Your task to perform on an android device: clear all cookies in the chrome app Image 0: 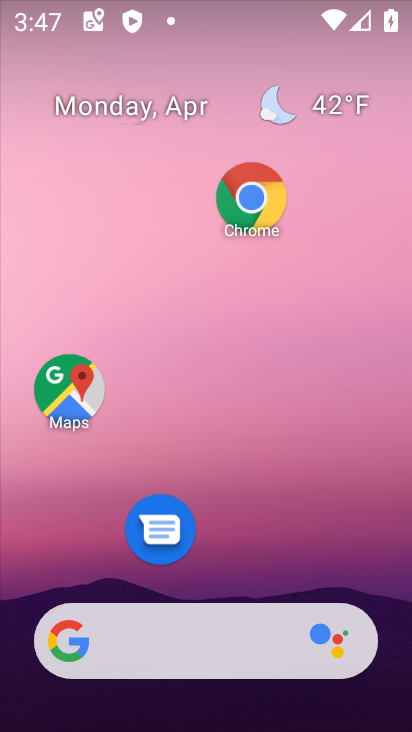
Step 0: click (244, 201)
Your task to perform on an android device: clear all cookies in the chrome app Image 1: 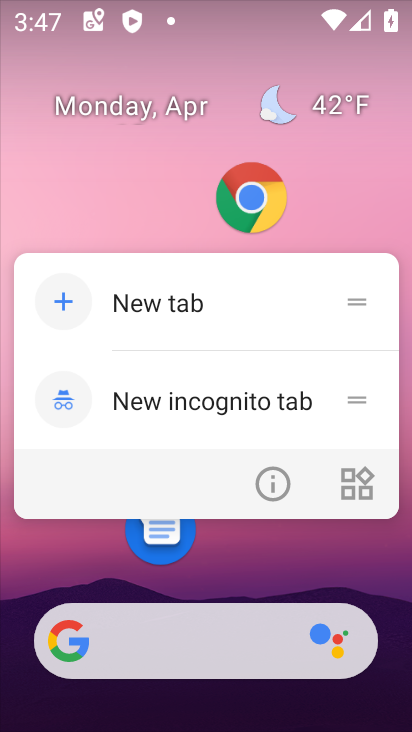
Step 1: click (244, 201)
Your task to perform on an android device: clear all cookies in the chrome app Image 2: 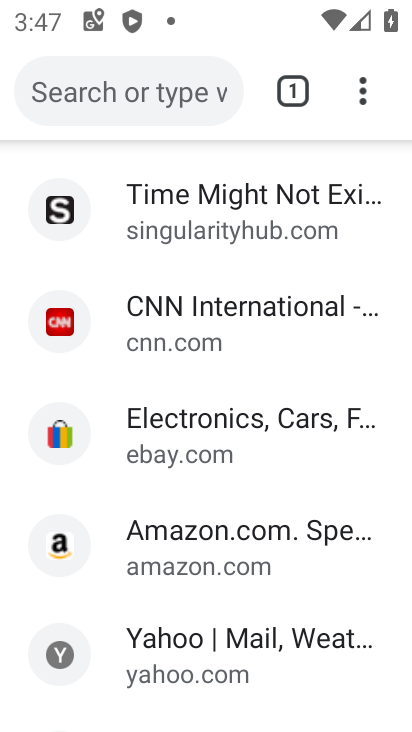
Step 2: click (364, 89)
Your task to perform on an android device: clear all cookies in the chrome app Image 3: 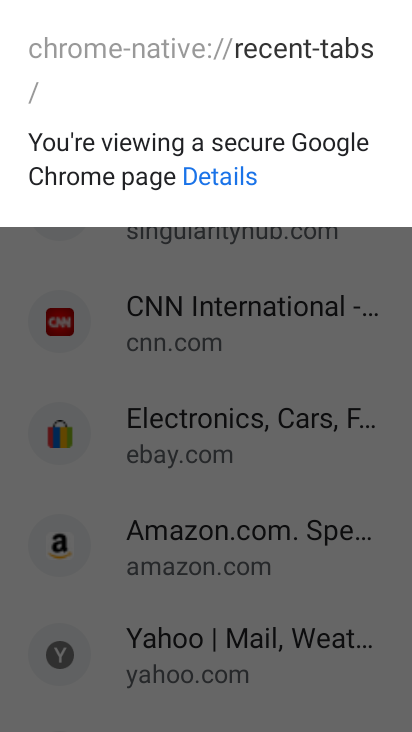
Step 3: click (297, 313)
Your task to perform on an android device: clear all cookies in the chrome app Image 4: 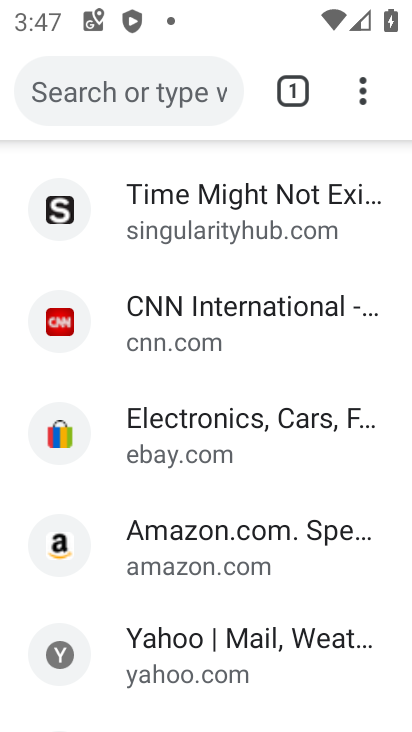
Step 4: click (356, 102)
Your task to perform on an android device: clear all cookies in the chrome app Image 5: 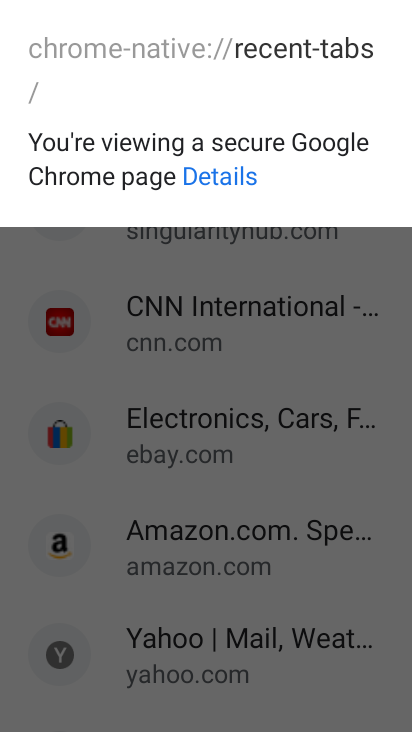
Step 5: click (351, 254)
Your task to perform on an android device: clear all cookies in the chrome app Image 6: 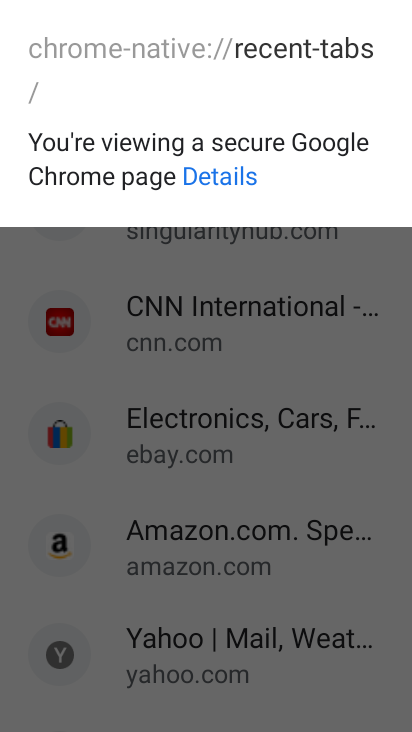
Step 6: click (277, 274)
Your task to perform on an android device: clear all cookies in the chrome app Image 7: 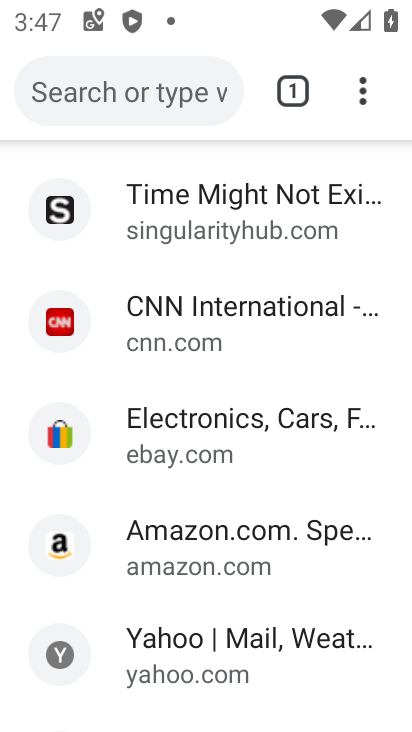
Step 7: click (361, 79)
Your task to perform on an android device: clear all cookies in the chrome app Image 8: 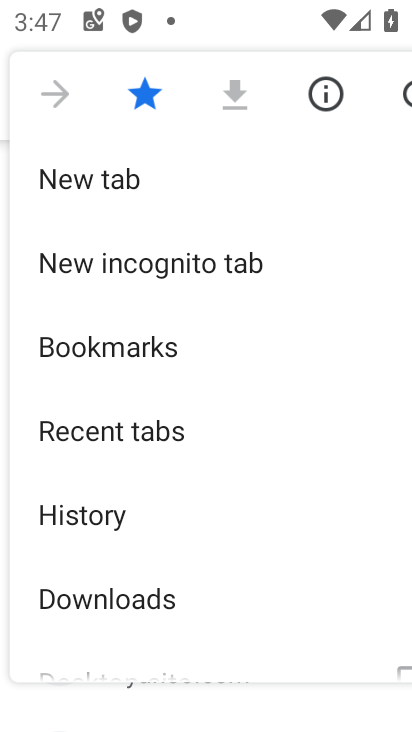
Step 8: click (131, 511)
Your task to perform on an android device: clear all cookies in the chrome app Image 9: 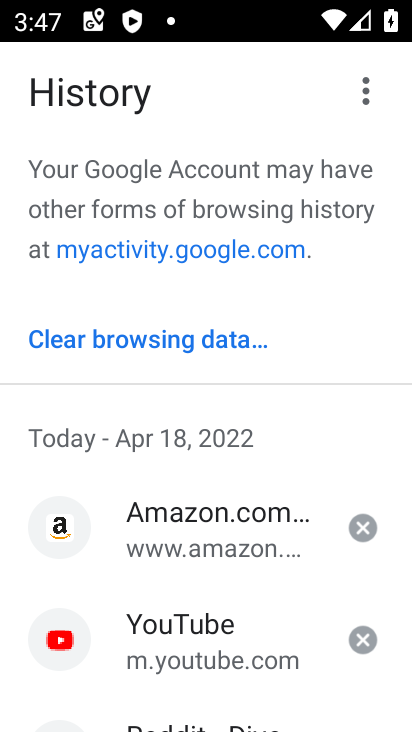
Step 9: click (171, 330)
Your task to perform on an android device: clear all cookies in the chrome app Image 10: 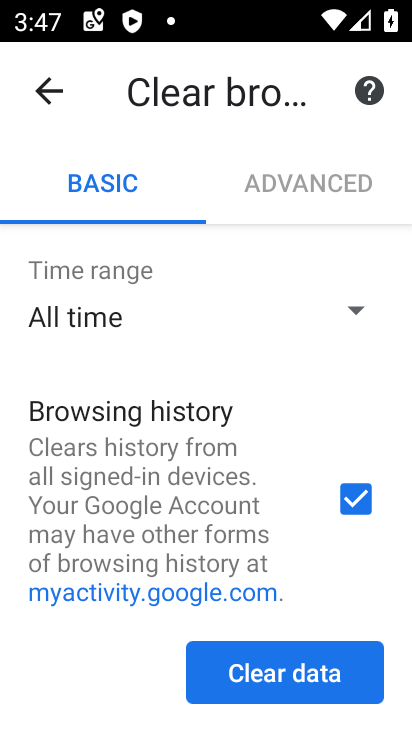
Step 10: drag from (243, 555) to (270, 286)
Your task to perform on an android device: clear all cookies in the chrome app Image 11: 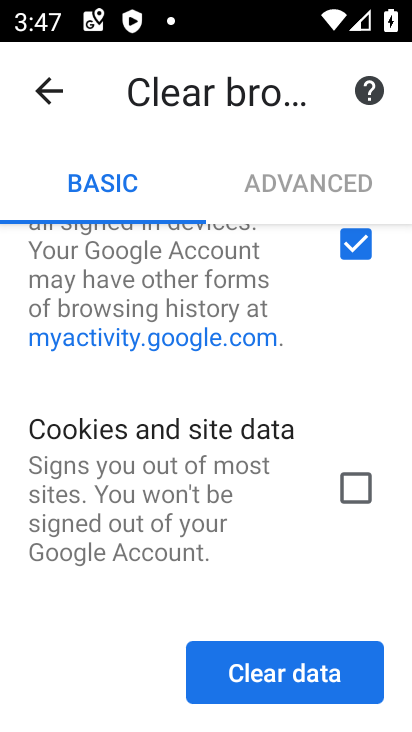
Step 11: click (357, 490)
Your task to perform on an android device: clear all cookies in the chrome app Image 12: 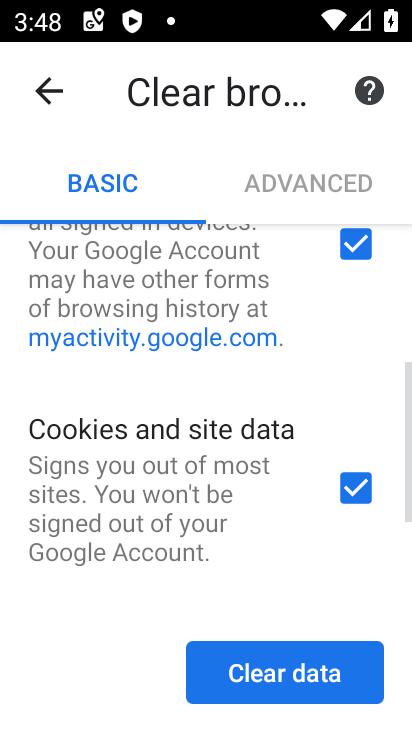
Step 12: click (312, 655)
Your task to perform on an android device: clear all cookies in the chrome app Image 13: 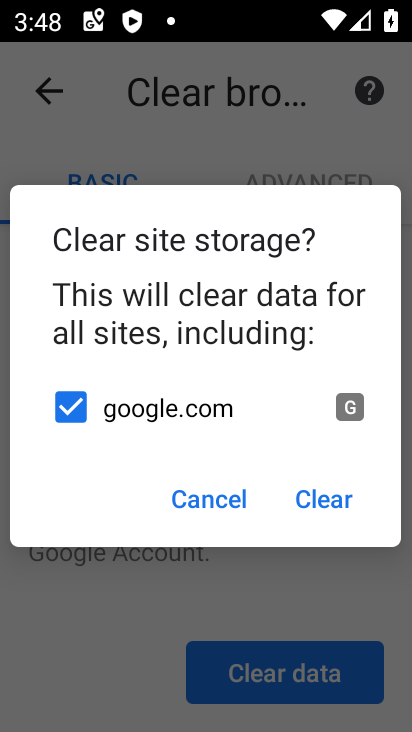
Step 13: click (305, 505)
Your task to perform on an android device: clear all cookies in the chrome app Image 14: 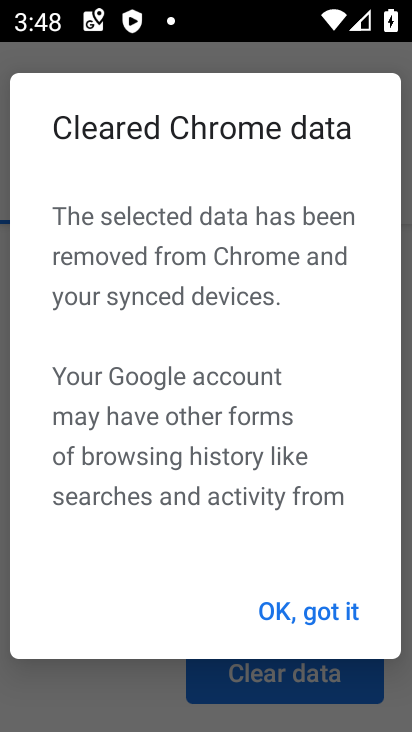
Step 14: task complete